Your task to perform on an android device: What's the news in Venezuela? Image 0: 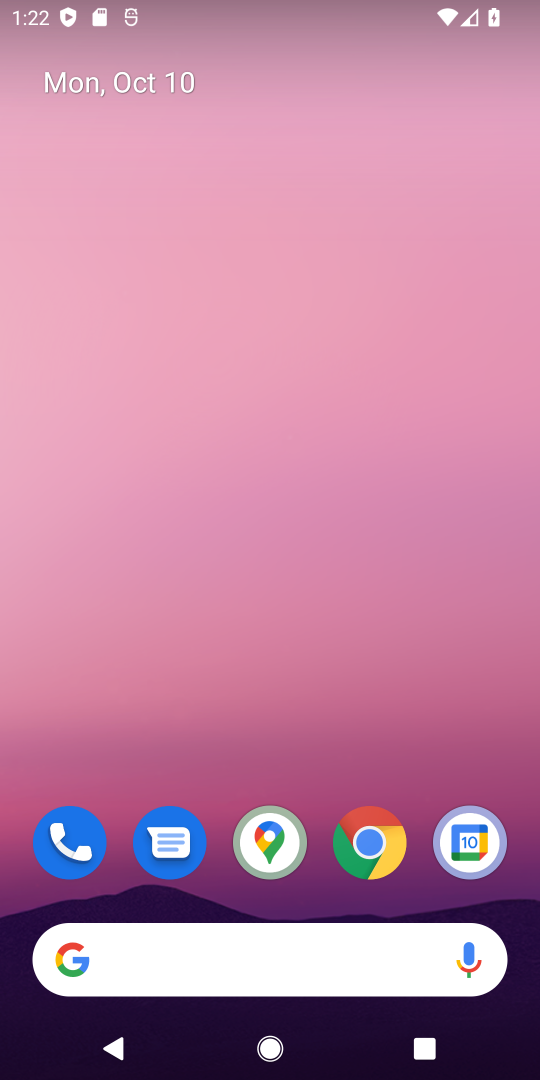
Step 0: click (357, 852)
Your task to perform on an android device: What's the news in Venezuela? Image 1: 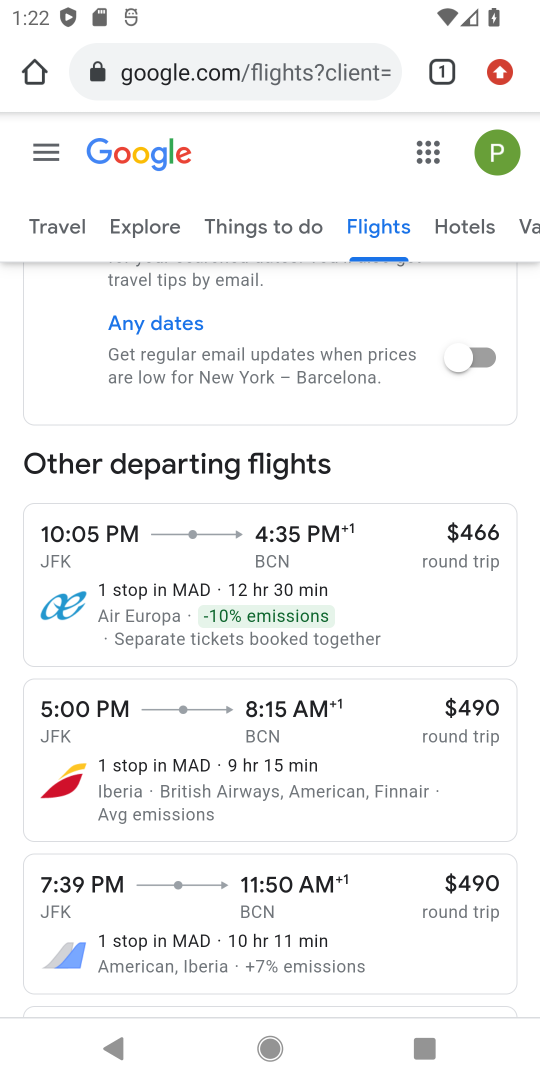
Step 1: click (289, 70)
Your task to perform on an android device: What's the news in Venezuela? Image 2: 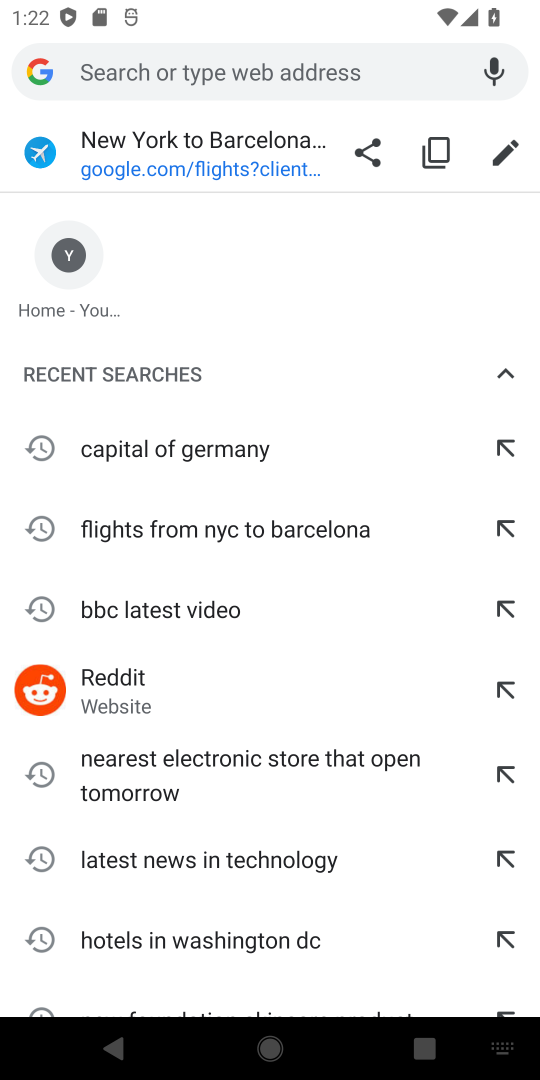
Step 2: type "news in Venezuela"
Your task to perform on an android device: What's the news in Venezuela? Image 3: 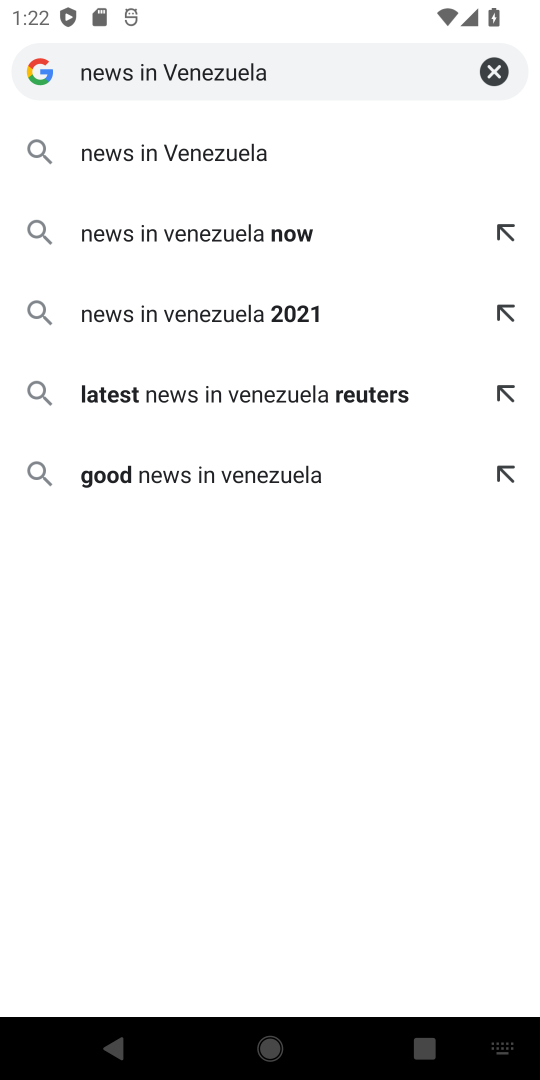
Step 3: press enter
Your task to perform on an android device: What's the news in Venezuela? Image 4: 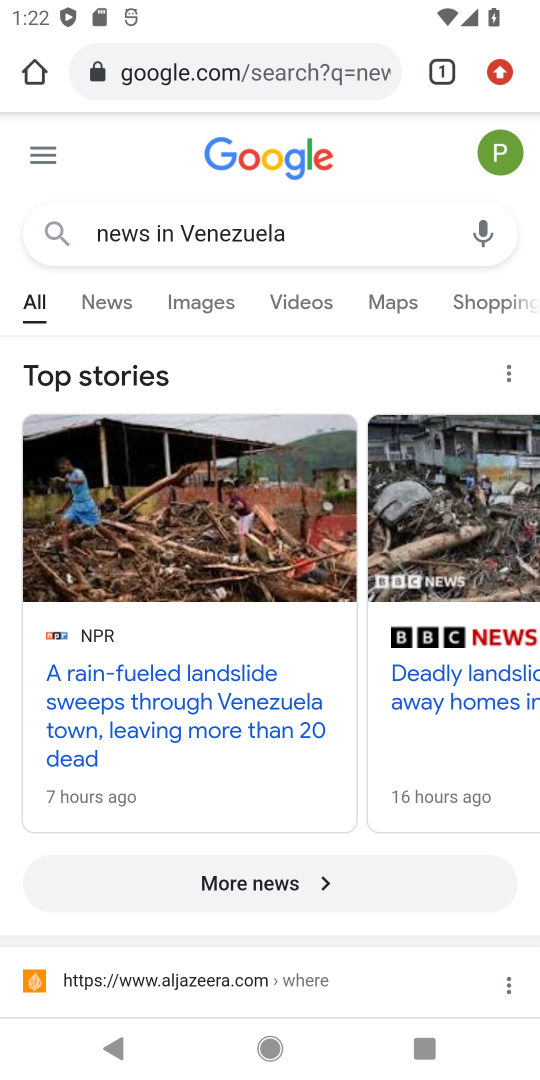
Step 4: drag from (386, 849) to (337, 199)
Your task to perform on an android device: What's the news in Venezuela? Image 5: 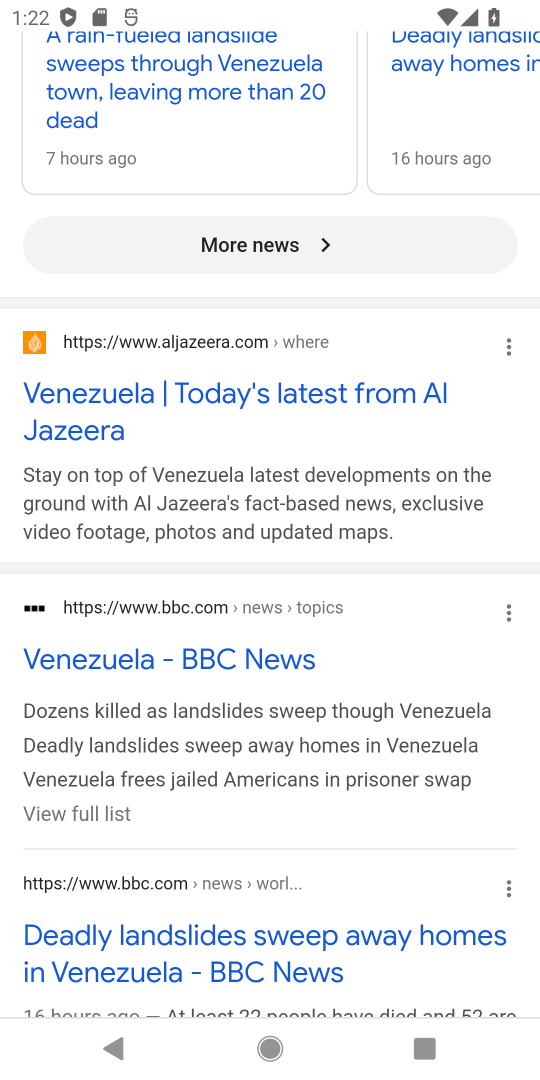
Step 5: drag from (392, 749) to (377, 34)
Your task to perform on an android device: What's the news in Venezuela? Image 6: 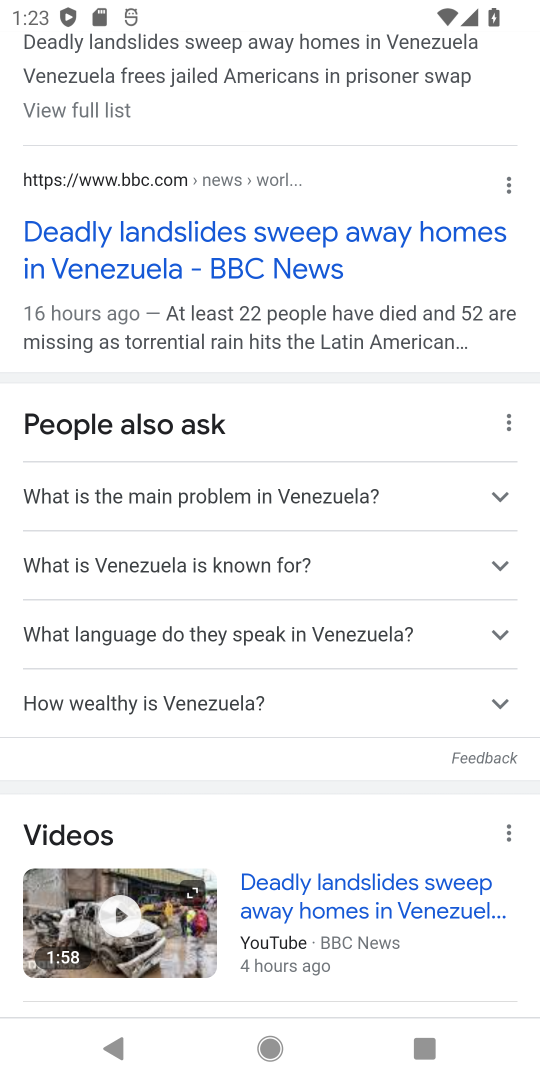
Step 6: drag from (338, 393) to (289, 912)
Your task to perform on an android device: What's the news in Venezuela? Image 7: 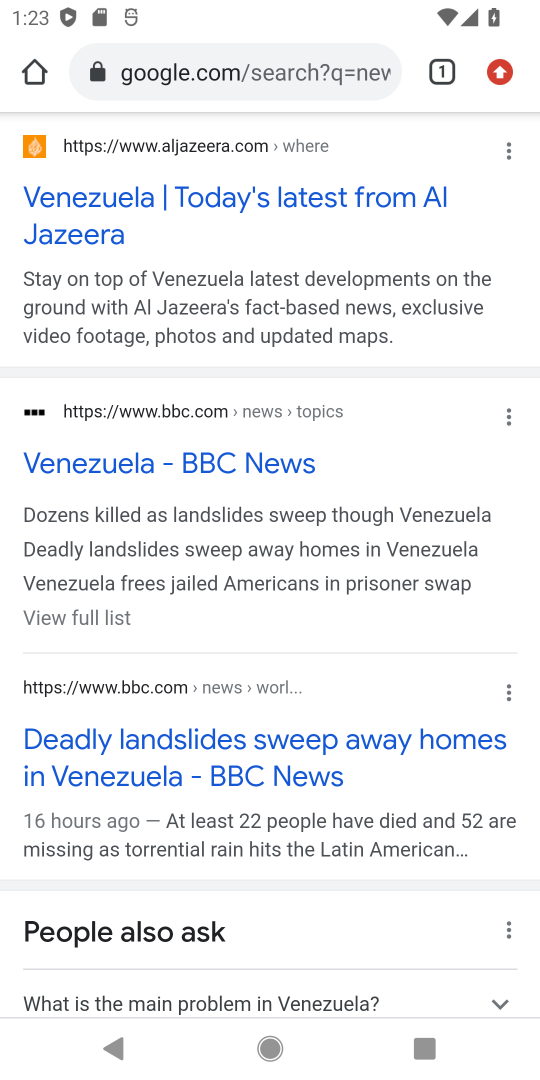
Step 7: drag from (281, 349) to (236, 696)
Your task to perform on an android device: What's the news in Venezuela? Image 8: 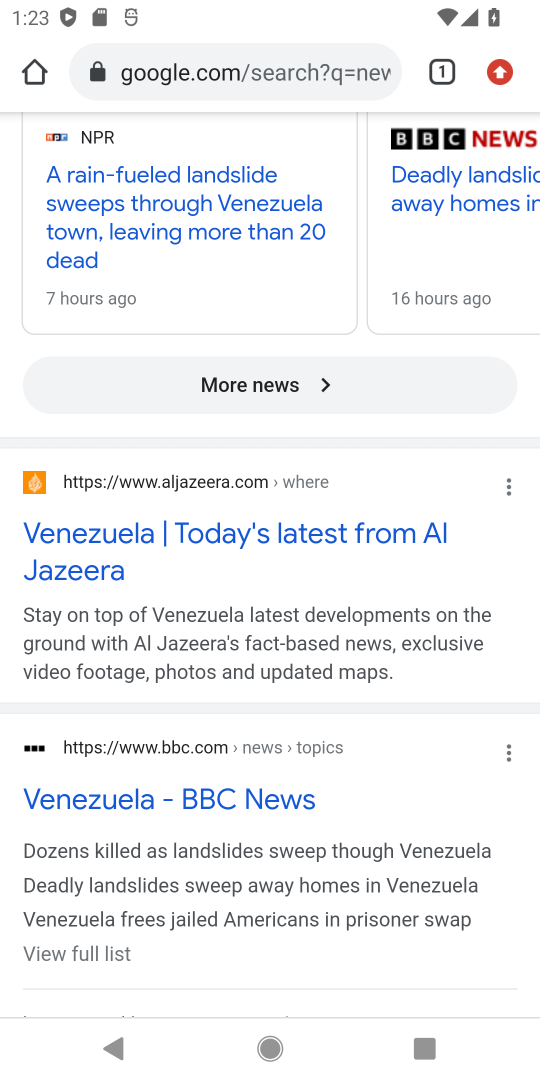
Step 8: drag from (111, 246) to (107, 508)
Your task to perform on an android device: What's the news in Venezuela? Image 9: 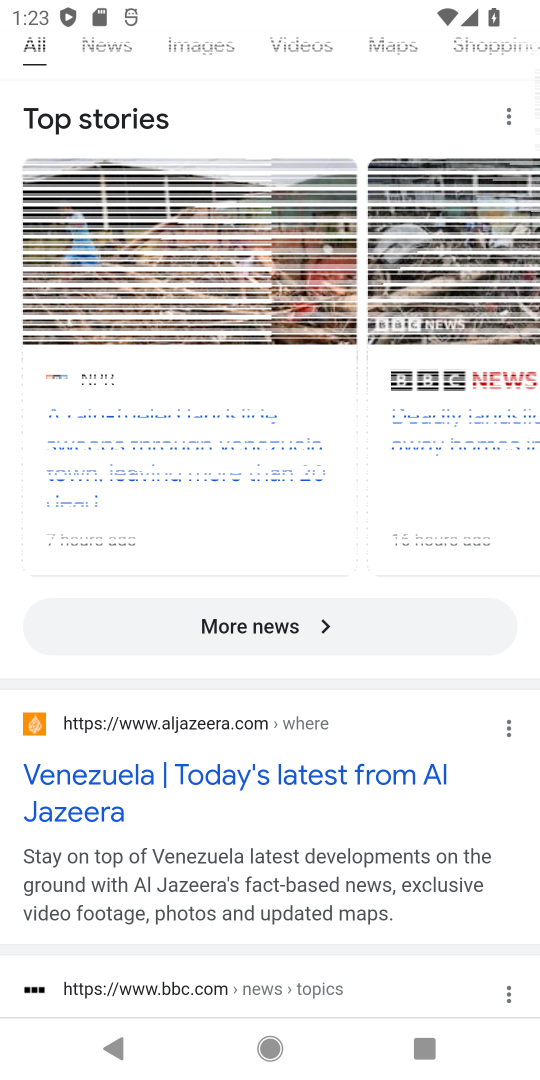
Step 9: click (58, 783)
Your task to perform on an android device: What's the news in Venezuela? Image 10: 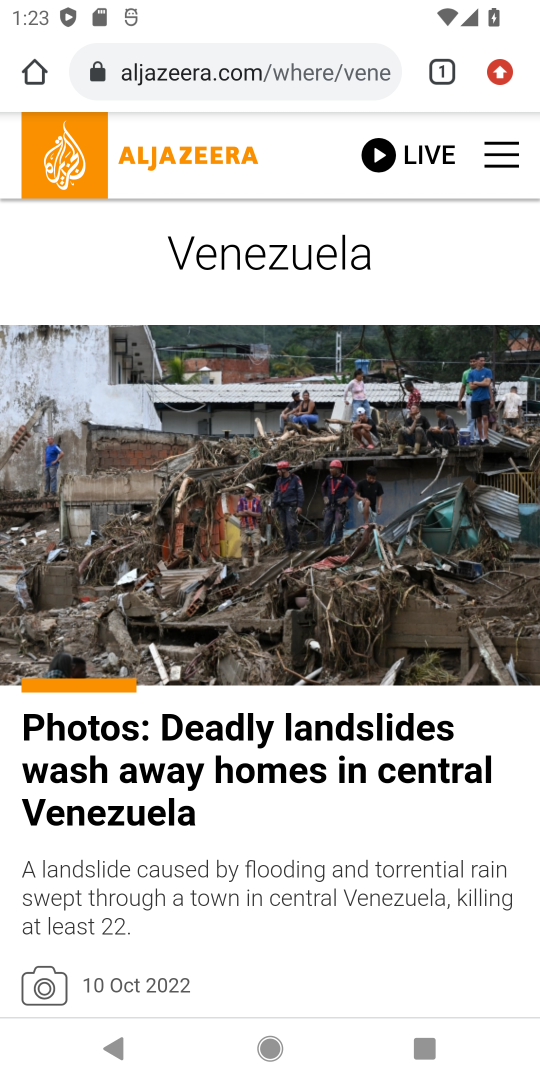
Step 10: drag from (242, 891) to (266, 742)
Your task to perform on an android device: What's the news in Venezuela? Image 11: 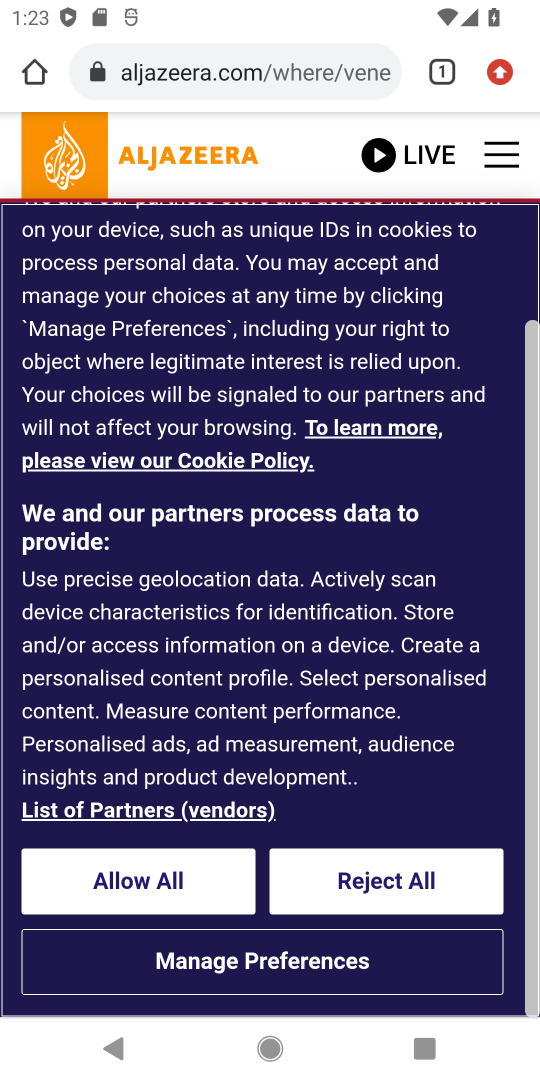
Step 11: click (139, 867)
Your task to perform on an android device: What's the news in Venezuela? Image 12: 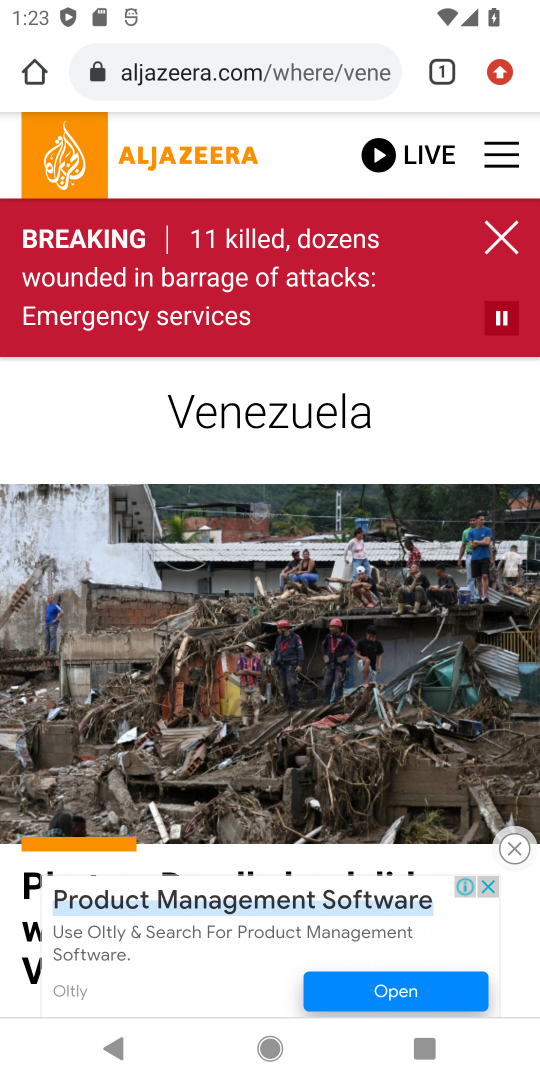
Step 12: task complete